Your task to perform on an android device: Turn off the flashlight Image 0: 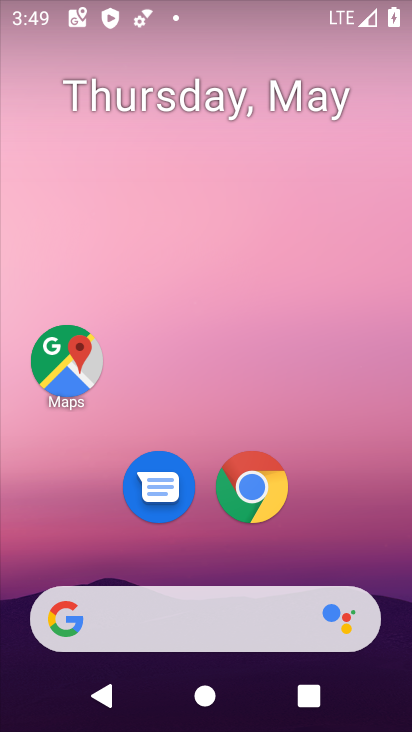
Step 0: drag from (268, 576) to (244, 102)
Your task to perform on an android device: Turn off the flashlight Image 1: 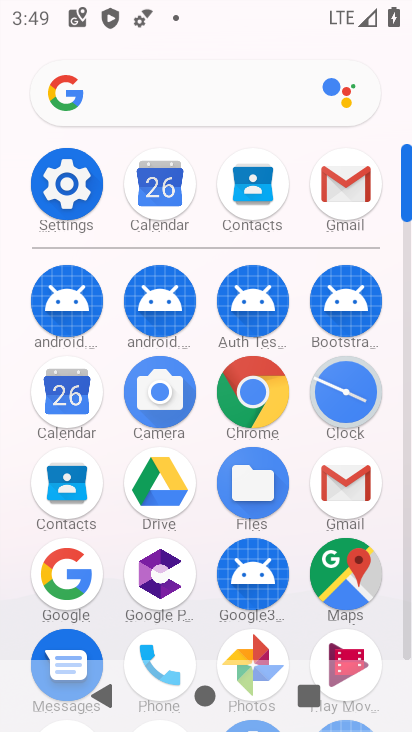
Step 1: task complete